Your task to perform on an android device: see tabs open on other devices in the chrome app Image 0: 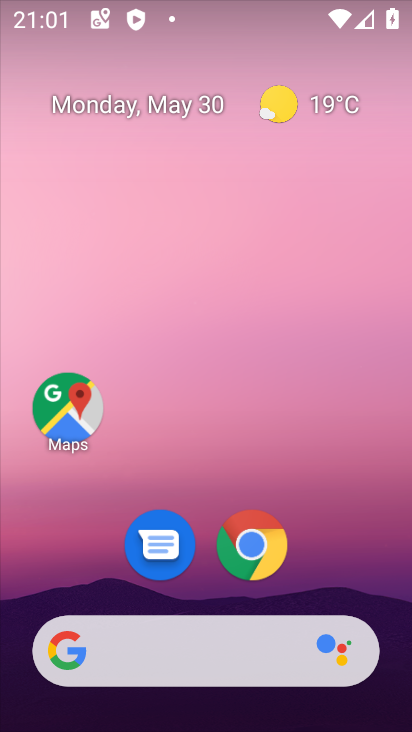
Step 0: click (258, 547)
Your task to perform on an android device: see tabs open on other devices in the chrome app Image 1: 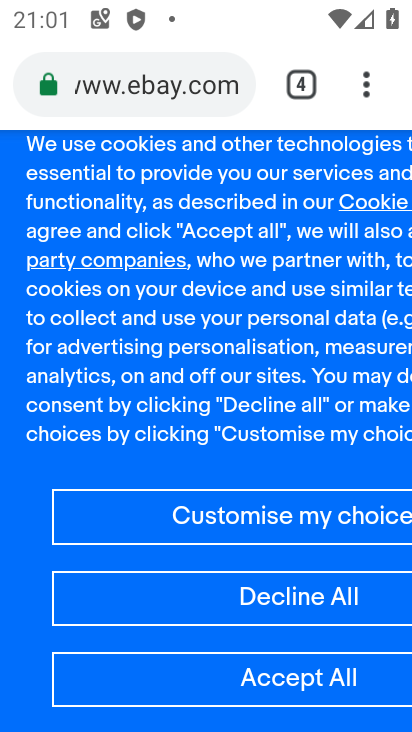
Step 1: click (369, 83)
Your task to perform on an android device: see tabs open on other devices in the chrome app Image 2: 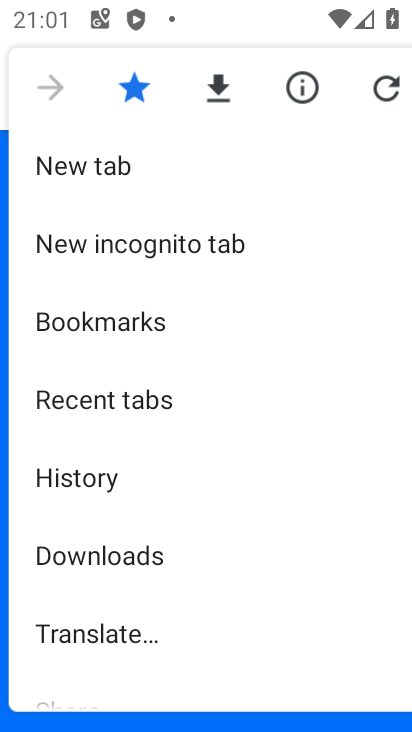
Step 2: drag from (214, 623) to (262, 213)
Your task to perform on an android device: see tabs open on other devices in the chrome app Image 3: 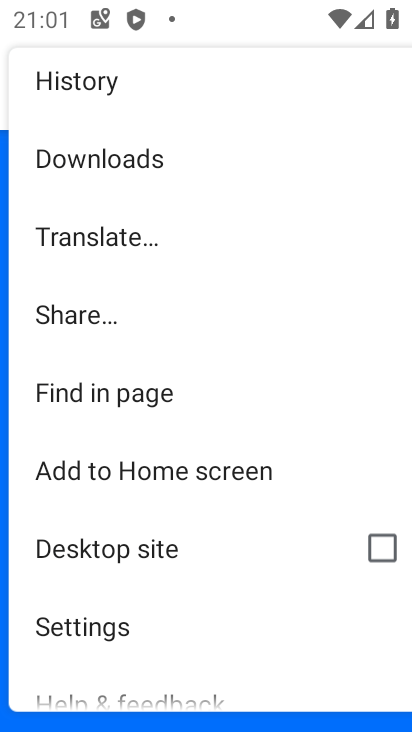
Step 3: drag from (196, 130) to (161, 572)
Your task to perform on an android device: see tabs open on other devices in the chrome app Image 4: 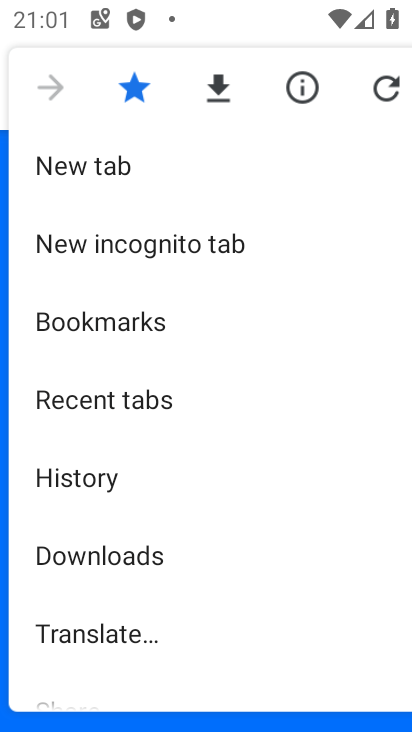
Step 4: click (126, 406)
Your task to perform on an android device: see tabs open on other devices in the chrome app Image 5: 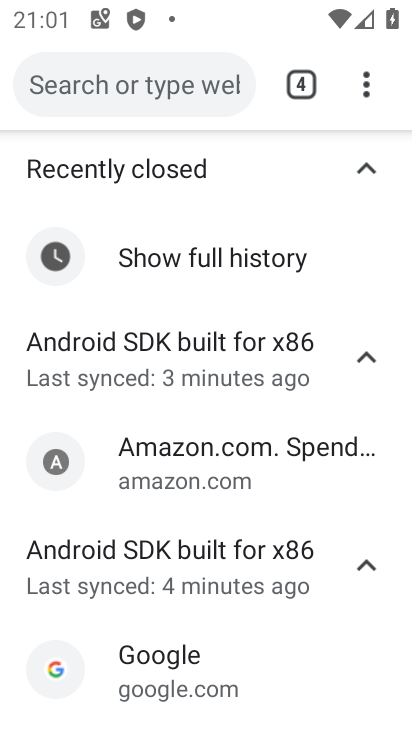
Step 5: task complete